Your task to perform on an android device: Open settings Image 0: 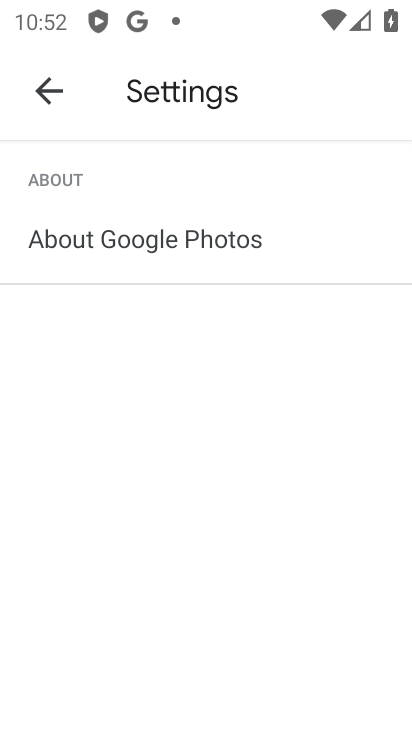
Step 0: press home button
Your task to perform on an android device: Open settings Image 1: 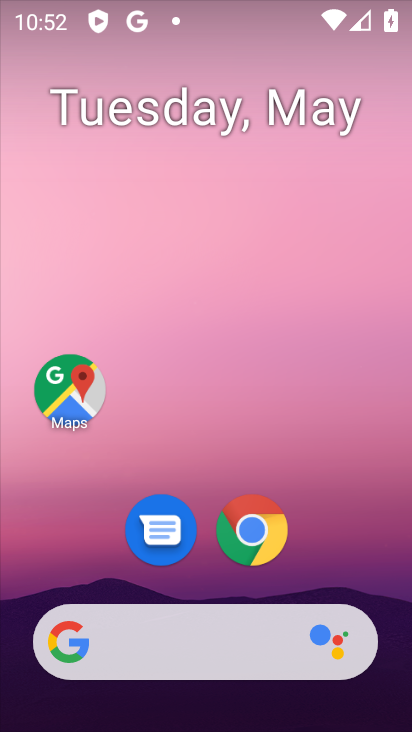
Step 1: drag from (323, 487) to (291, 84)
Your task to perform on an android device: Open settings Image 2: 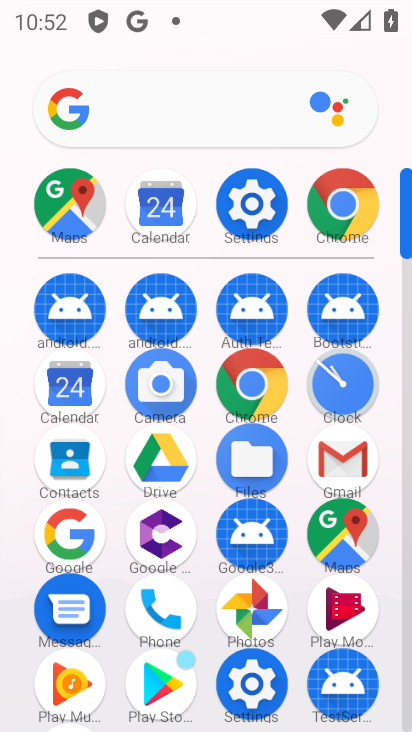
Step 2: click (238, 205)
Your task to perform on an android device: Open settings Image 3: 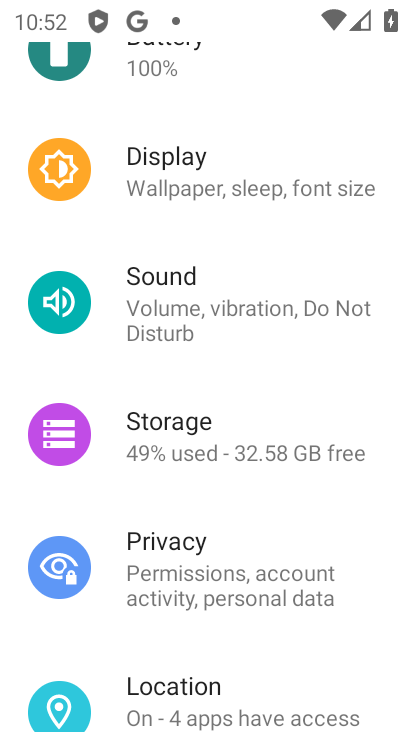
Step 3: task complete